Your task to perform on an android device: empty trash in the gmail app Image 0: 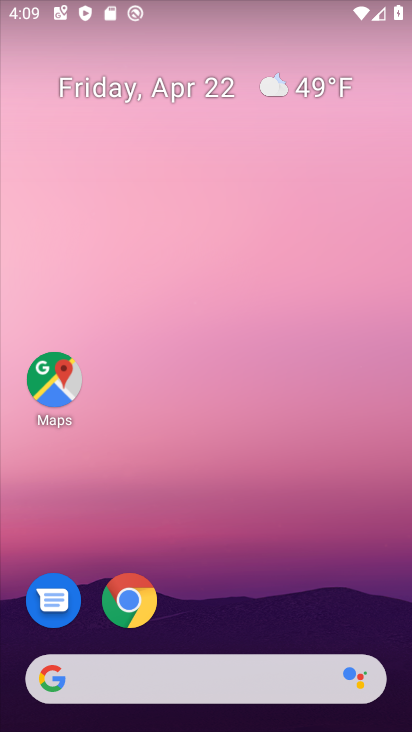
Step 0: drag from (232, 541) to (403, 7)
Your task to perform on an android device: empty trash in the gmail app Image 1: 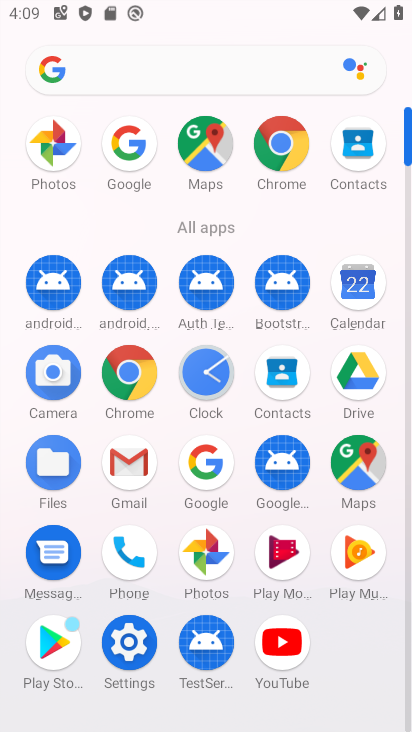
Step 1: click (130, 461)
Your task to perform on an android device: empty trash in the gmail app Image 2: 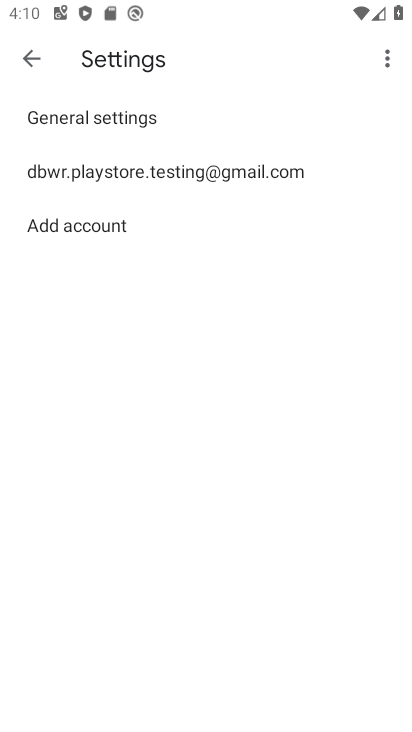
Step 2: press back button
Your task to perform on an android device: empty trash in the gmail app Image 3: 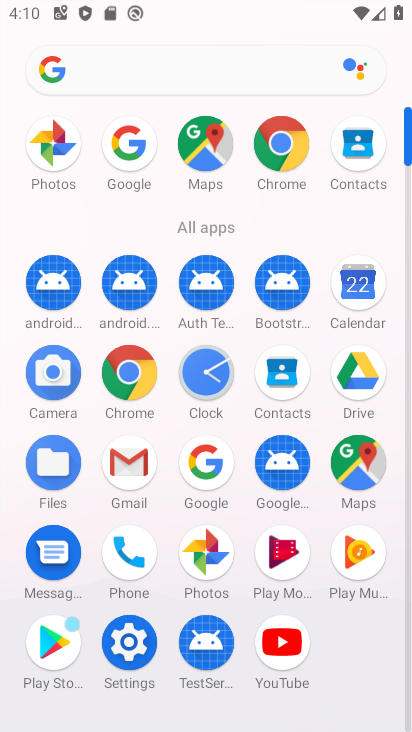
Step 3: click (128, 464)
Your task to perform on an android device: empty trash in the gmail app Image 4: 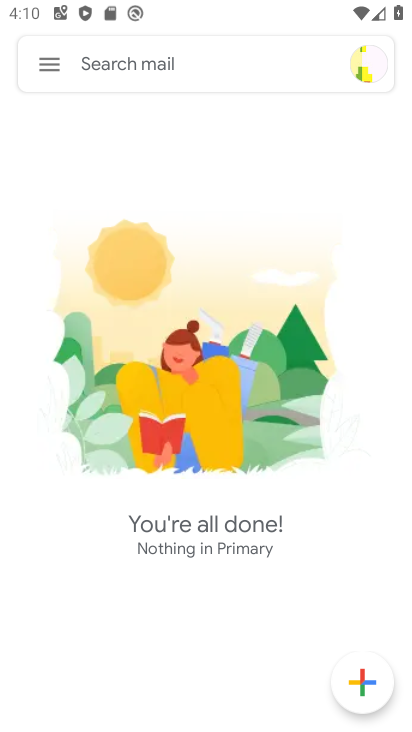
Step 4: click (50, 60)
Your task to perform on an android device: empty trash in the gmail app Image 5: 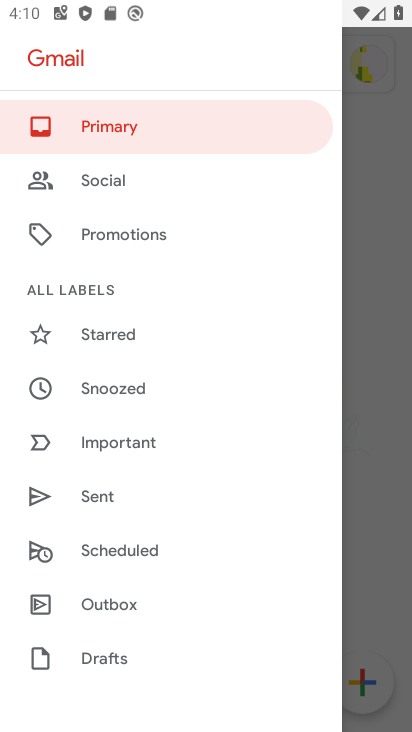
Step 5: drag from (260, 442) to (244, 348)
Your task to perform on an android device: empty trash in the gmail app Image 6: 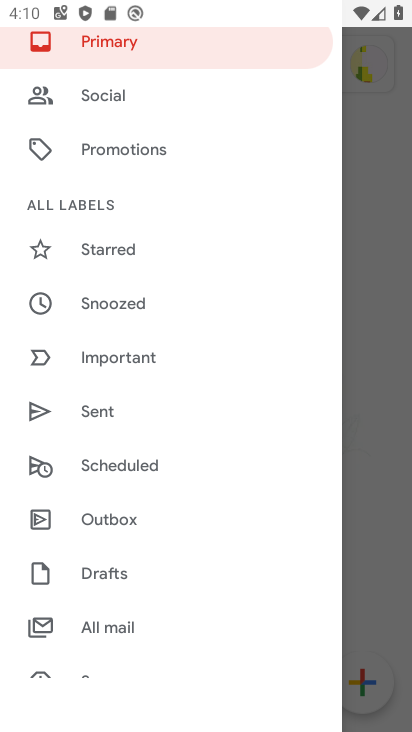
Step 6: drag from (228, 454) to (234, 359)
Your task to perform on an android device: empty trash in the gmail app Image 7: 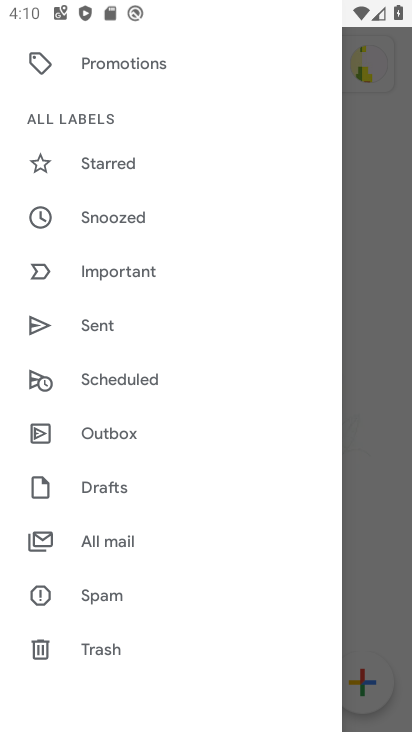
Step 7: click (109, 645)
Your task to perform on an android device: empty trash in the gmail app Image 8: 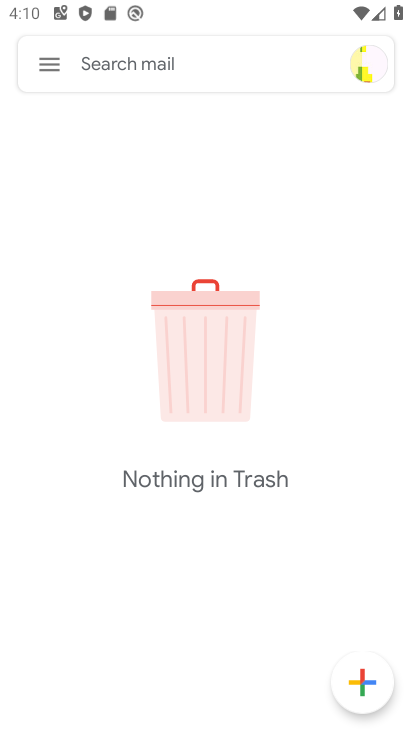
Step 8: task complete